Your task to perform on an android device: Play the last video I watched on Youtube Image 0: 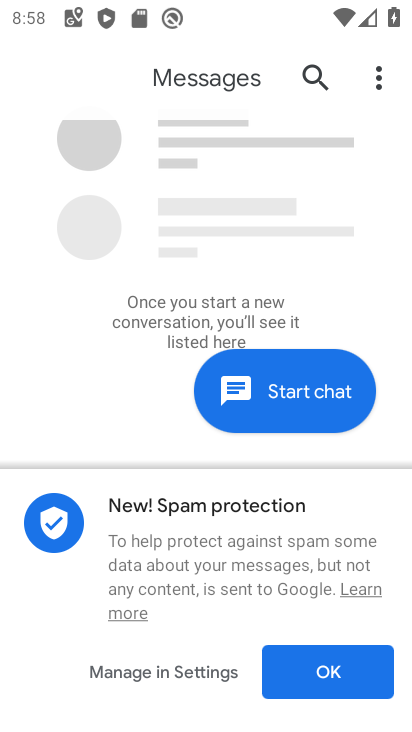
Step 0: press home button
Your task to perform on an android device: Play the last video I watched on Youtube Image 1: 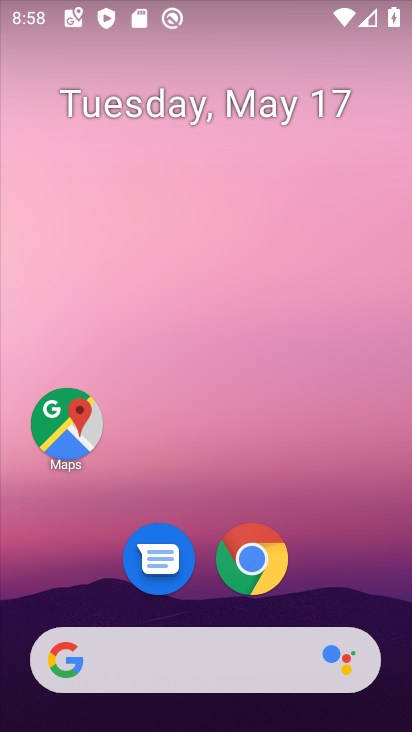
Step 1: drag from (272, 711) to (260, 74)
Your task to perform on an android device: Play the last video I watched on Youtube Image 2: 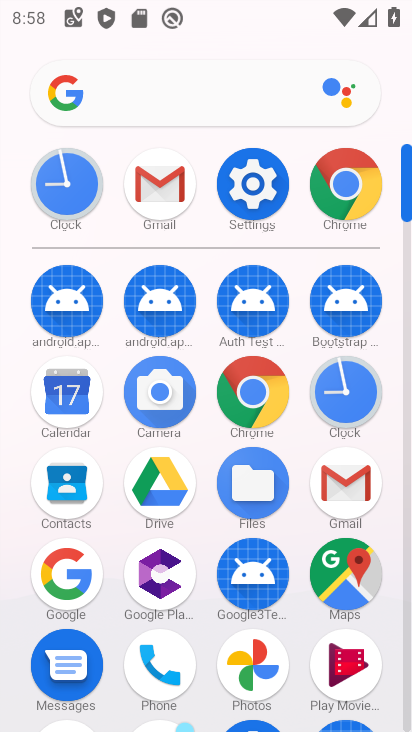
Step 2: drag from (304, 477) to (329, 62)
Your task to perform on an android device: Play the last video I watched on Youtube Image 3: 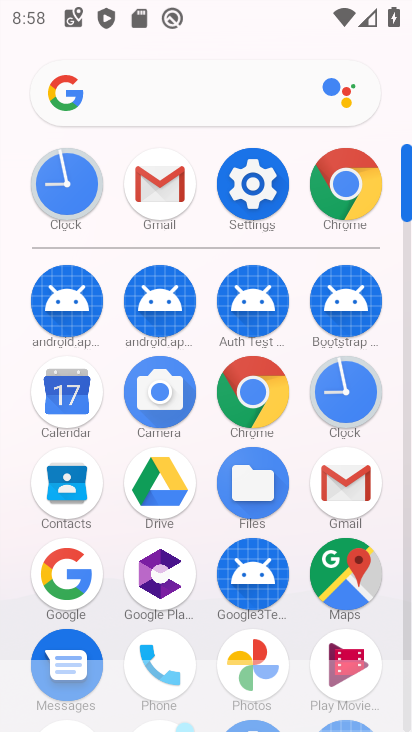
Step 3: drag from (255, 658) to (229, 176)
Your task to perform on an android device: Play the last video I watched on Youtube Image 4: 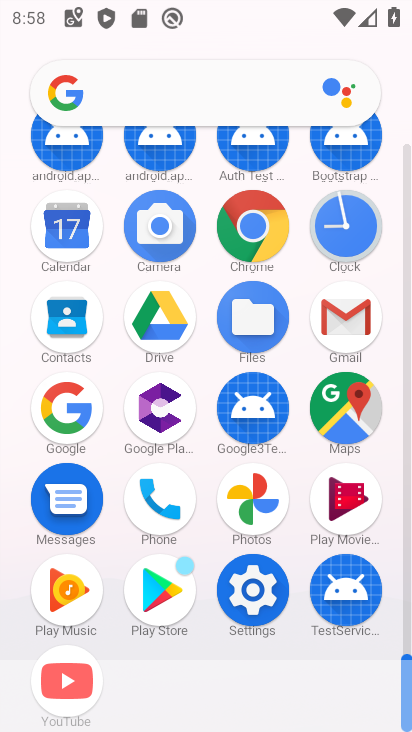
Step 4: click (70, 644)
Your task to perform on an android device: Play the last video I watched on Youtube Image 5: 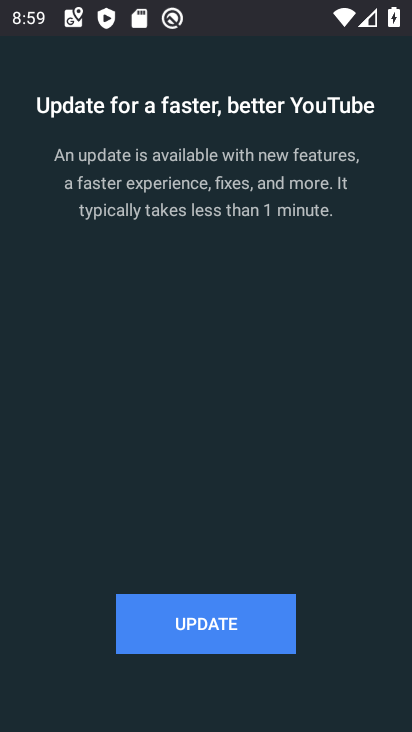
Step 5: click (247, 627)
Your task to perform on an android device: Play the last video I watched on Youtube Image 6: 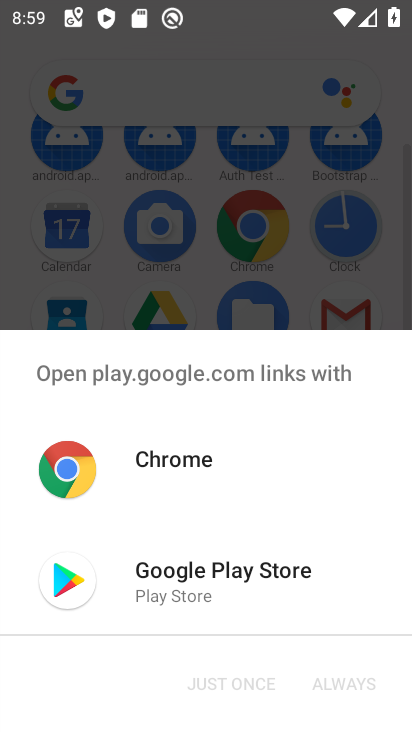
Step 6: click (177, 577)
Your task to perform on an android device: Play the last video I watched on Youtube Image 7: 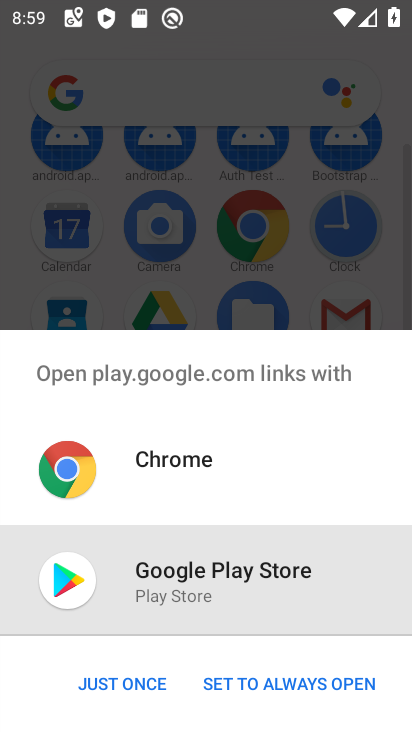
Step 7: click (171, 573)
Your task to perform on an android device: Play the last video I watched on Youtube Image 8: 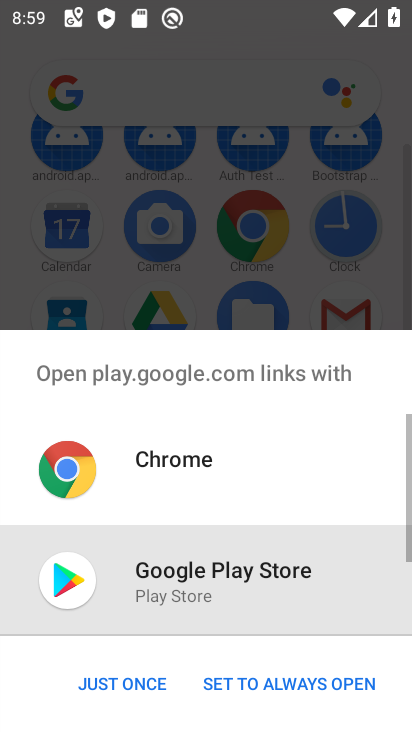
Step 8: click (344, 690)
Your task to perform on an android device: Play the last video I watched on Youtube Image 9: 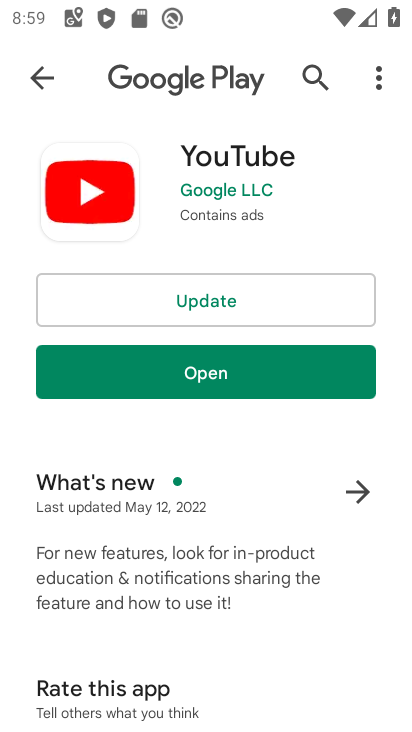
Step 9: click (244, 295)
Your task to perform on an android device: Play the last video I watched on Youtube Image 10: 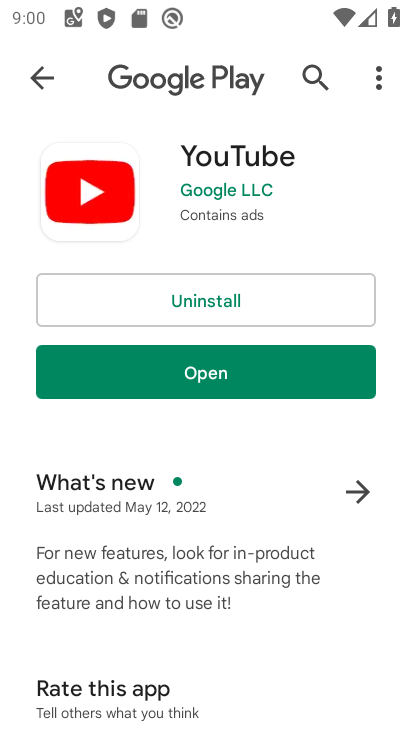
Step 10: click (321, 386)
Your task to perform on an android device: Play the last video I watched on Youtube Image 11: 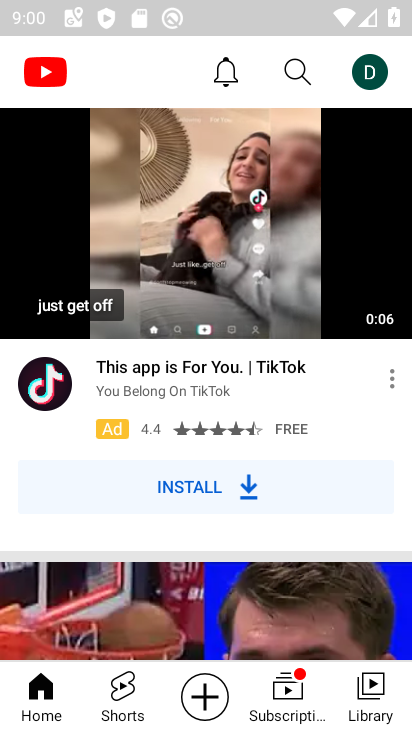
Step 11: click (369, 704)
Your task to perform on an android device: Play the last video I watched on Youtube Image 12: 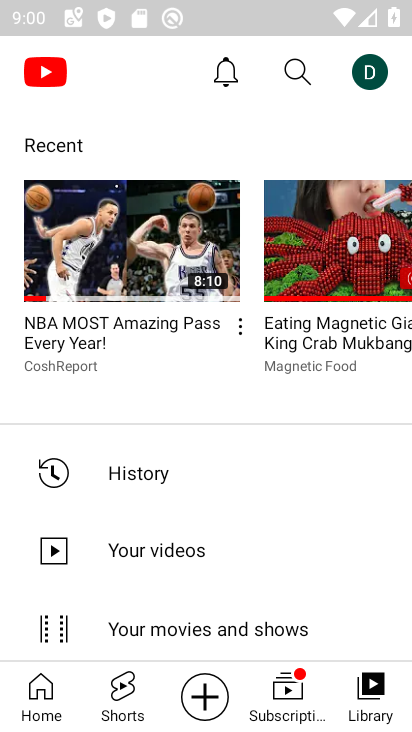
Step 12: click (141, 242)
Your task to perform on an android device: Play the last video I watched on Youtube Image 13: 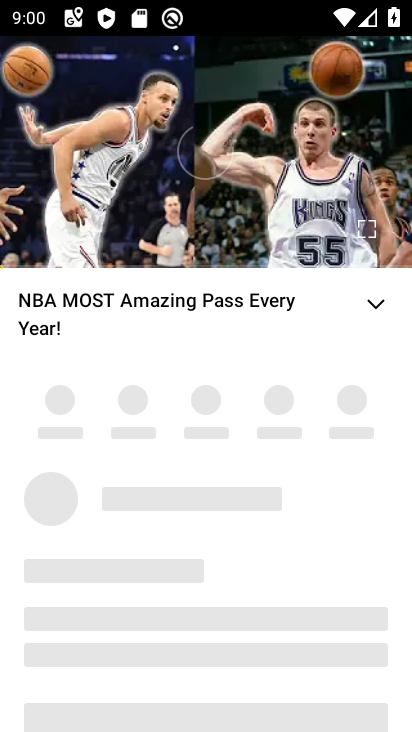
Step 13: task complete